Your task to perform on an android device: allow notifications from all sites in the chrome app Image 0: 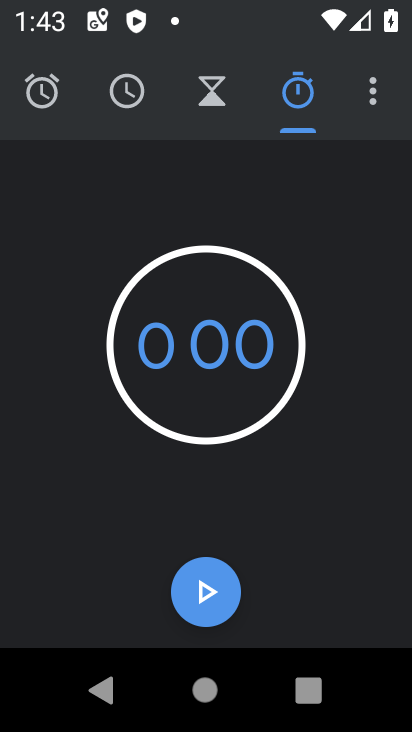
Step 0: press home button
Your task to perform on an android device: allow notifications from all sites in the chrome app Image 1: 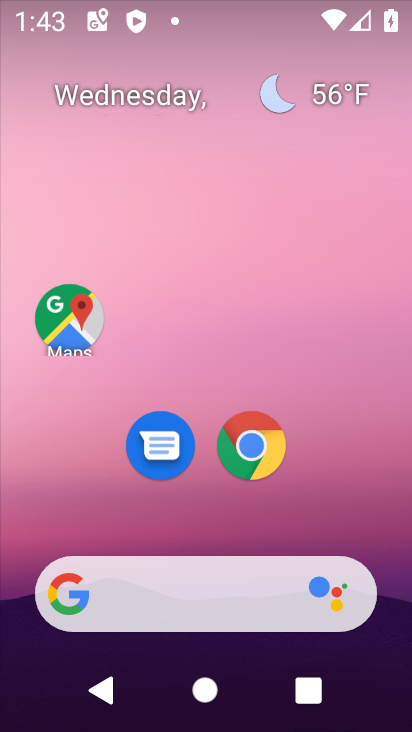
Step 1: drag from (196, 501) to (112, 10)
Your task to perform on an android device: allow notifications from all sites in the chrome app Image 2: 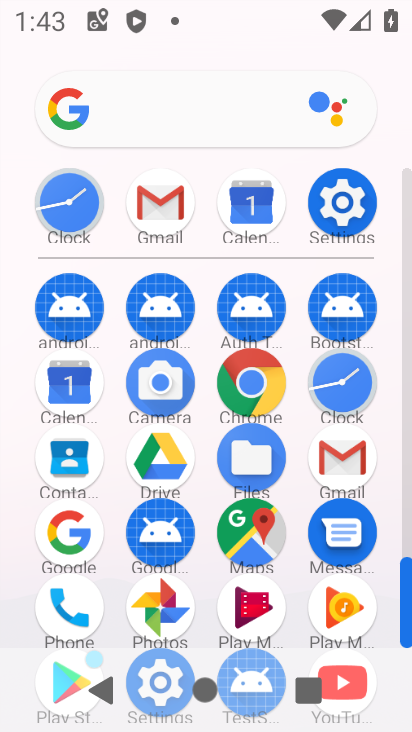
Step 2: click (255, 392)
Your task to perform on an android device: allow notifications from all sites in the chrome app Image 3: 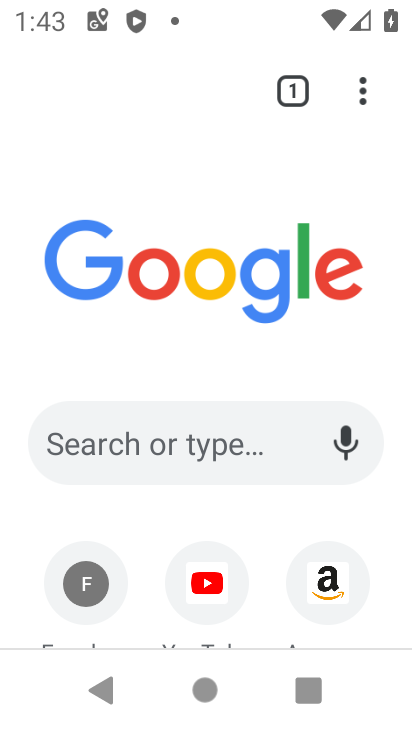
Step 3: drag from (358, 91) to (94, 470)
Your task to perform on an android device: allow notifications from all sites in the chrome app Image 4: 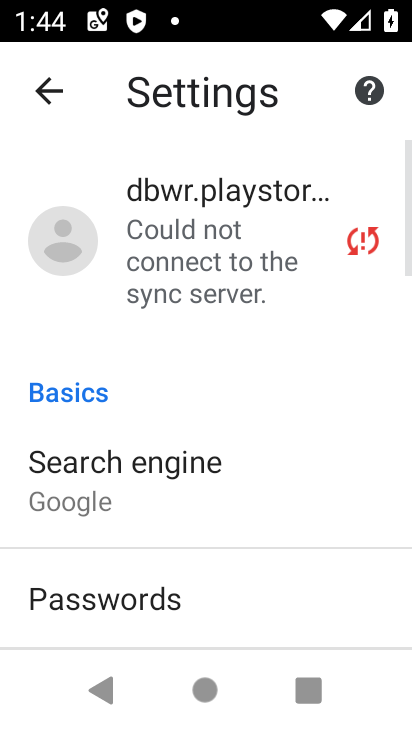
Step 4: drag from (148, 544) to (159, 1)
Your task to perform on an android device: allow notifications from all sites in the chrome app Image 5: 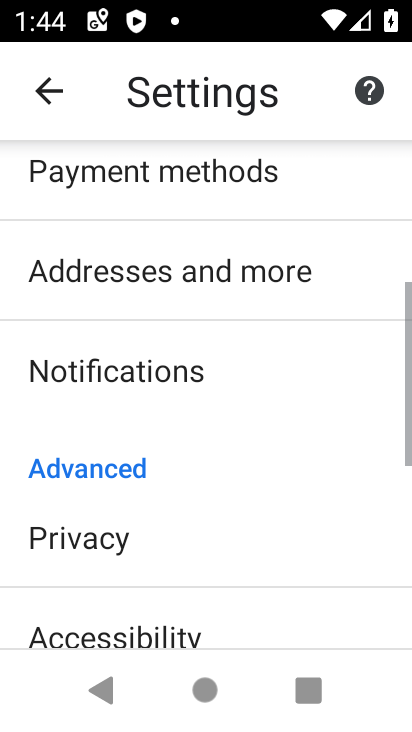
Step 5: drag from (106, 537) to (124, 59)
Your task to perform on an android device: allow notifications from all sites in the chrome app Image 6: 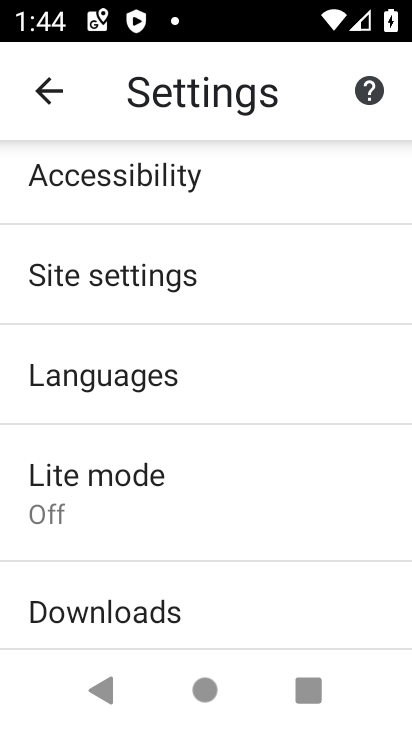
Step 6: click (157, 279)
Your task to perform on an android device: allow notifications from all sites in the chrome app Image 7: 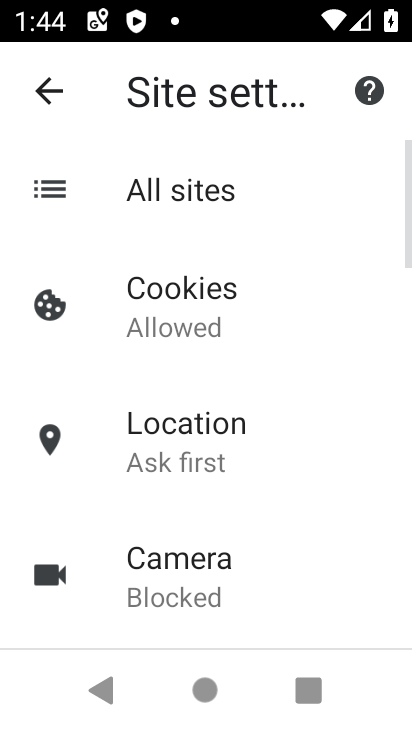
Step 7: drag from (163, 536) to (147, 127)
Your task to perform on an android device: allow notifications from all sites in the chrome app Image 8: 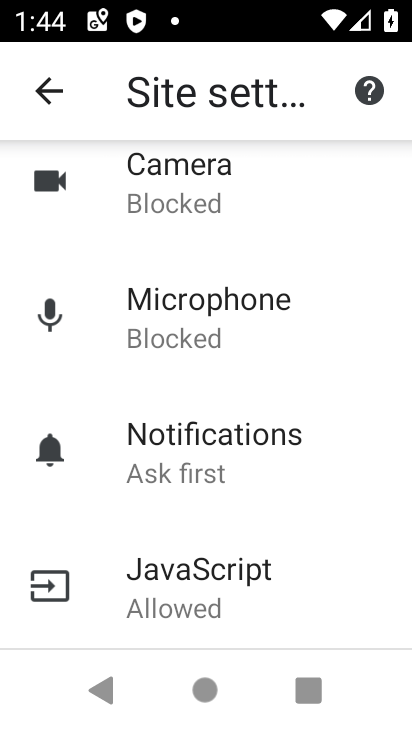
Step 8: click (206, 458)
Your task to perform on an android device: allow notifications from all sites in the chrome app Image 9: 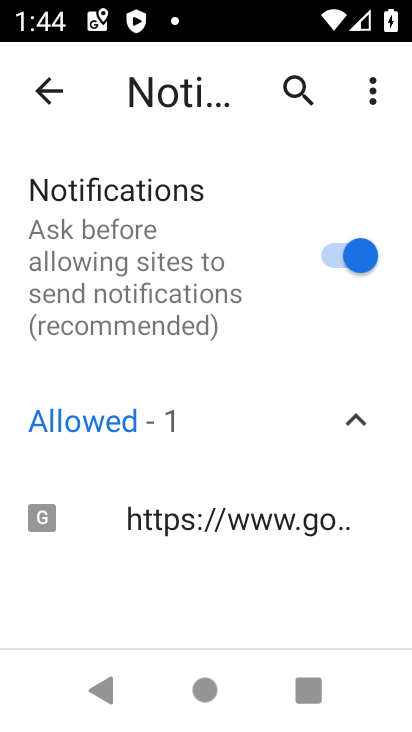
Step 9: task complete